Your task to perform on an android device: open a new tab in the chrome app Image 0: 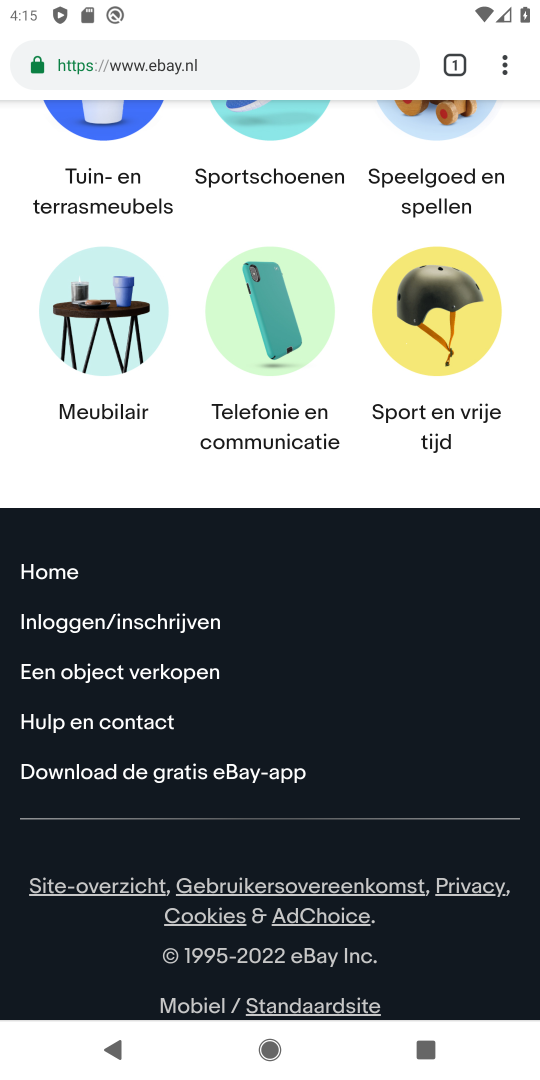
Step 0: click (499, 76)
Your task to perform on an android device: open a new tab in the chrome app Image 1: 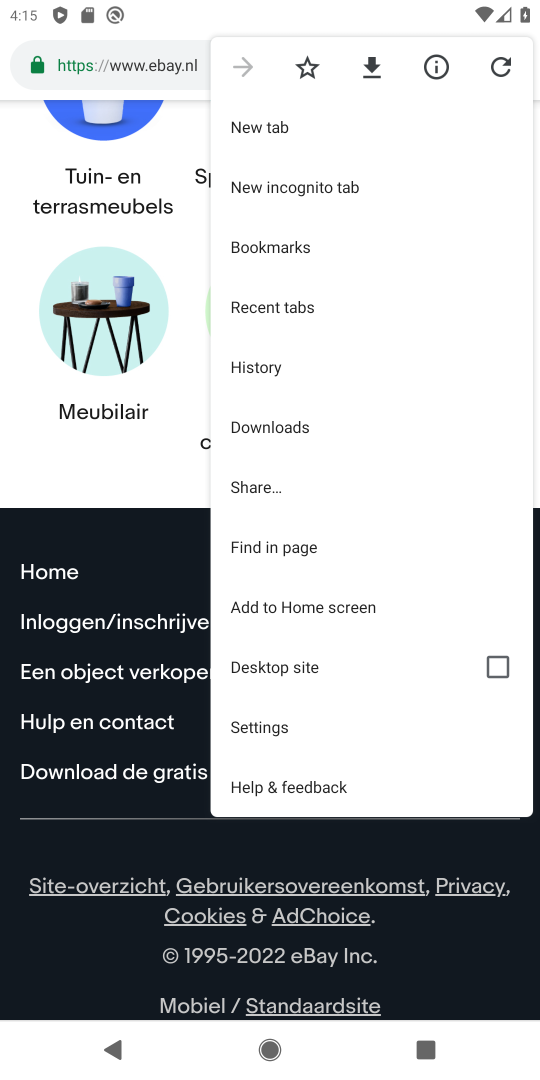
Step 1: click (265, 127)
Your task to perform on an android device: open a new tab in the chrome app Image 2: 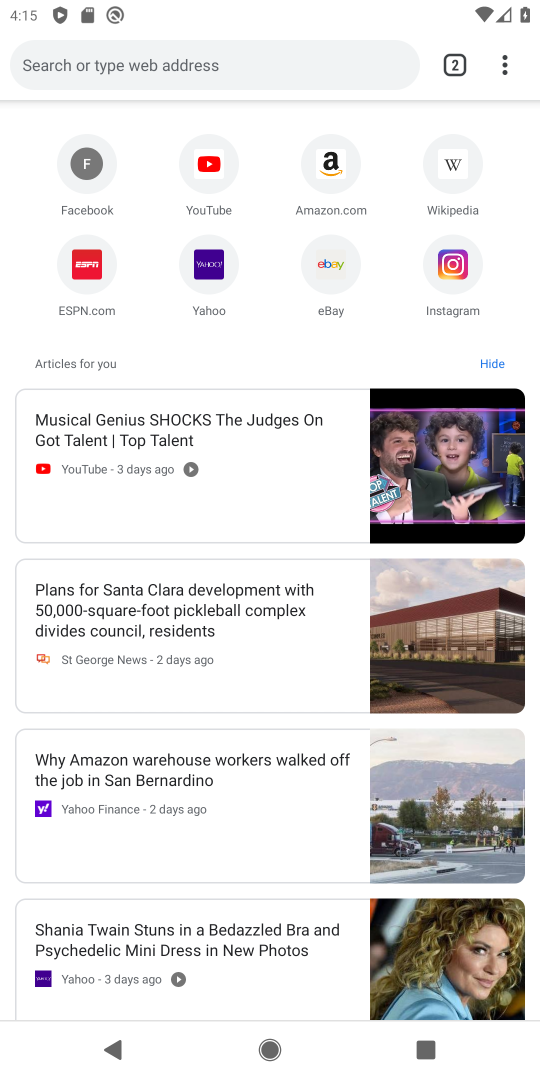
Step 2: task complete